Your task to perform on an android device: Search for sushi restaurants on Maps Image 0: 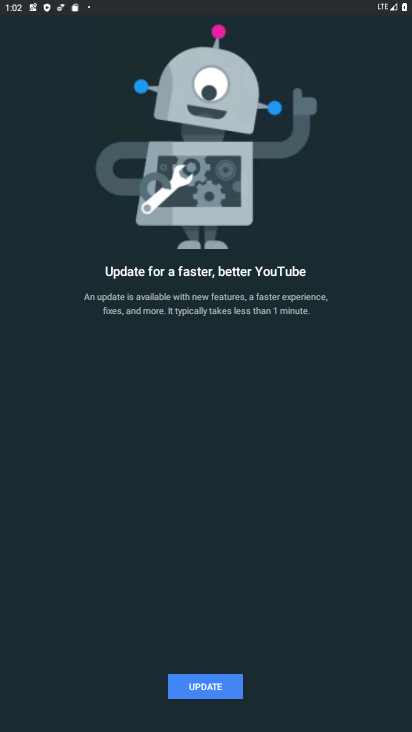
Step 0: press home button
Your task to perform on an android device: Search for sushi restaurants on Maps Image 1: 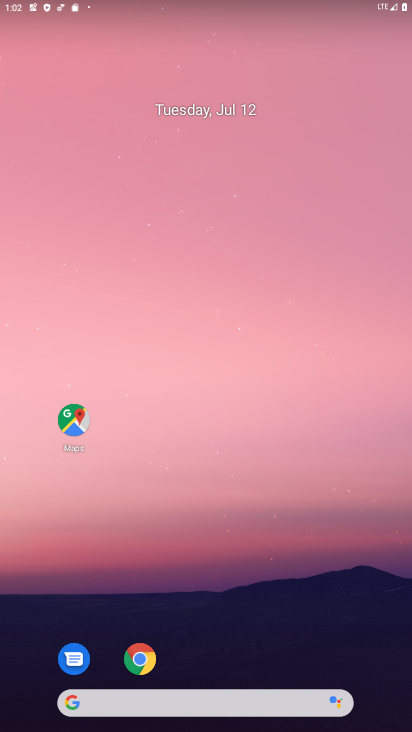
Step 1: drag from (231, 729) to (218, 140)
Your task to perform on an android device: Search for sushi restaurants on Maps Image 2: 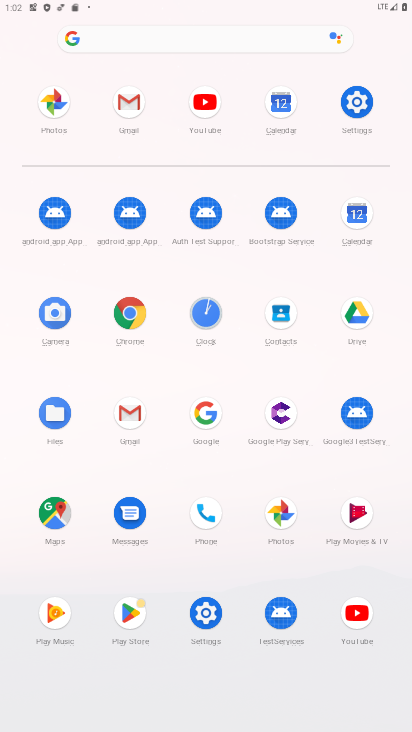
Step 2: click (47, 509)
Your task to perform on an android device: Search for sushi restaurants on Maps Image 3: 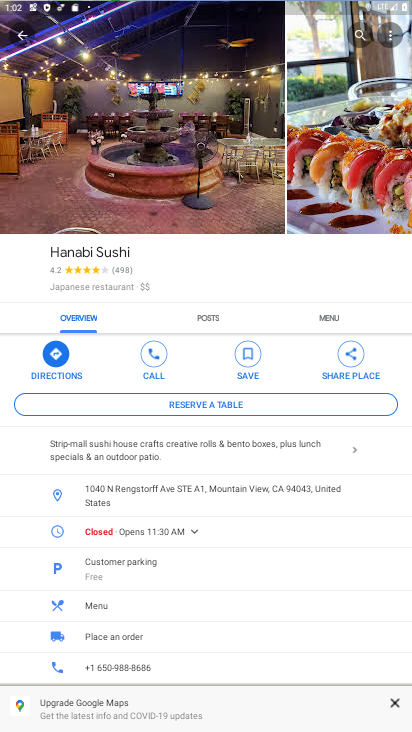
Step 3: click (394, 700)
Your task to perform on an android device: Search for sushi restaurants on Maps Image 4: 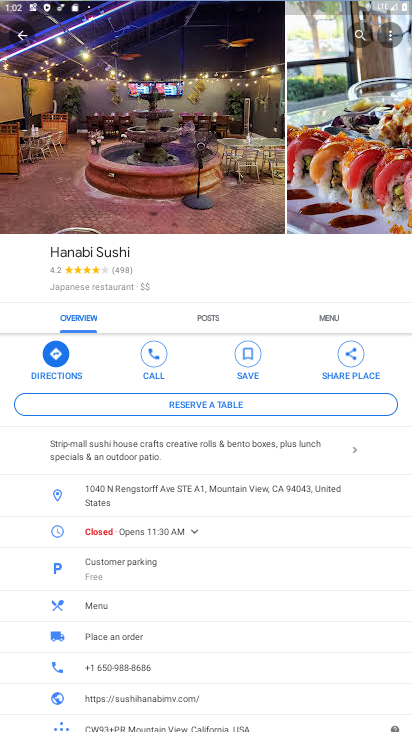
Step 4: click (25, 36)
Your task to perform on an android device: Search for sushi restaurants on Maps Image 5: 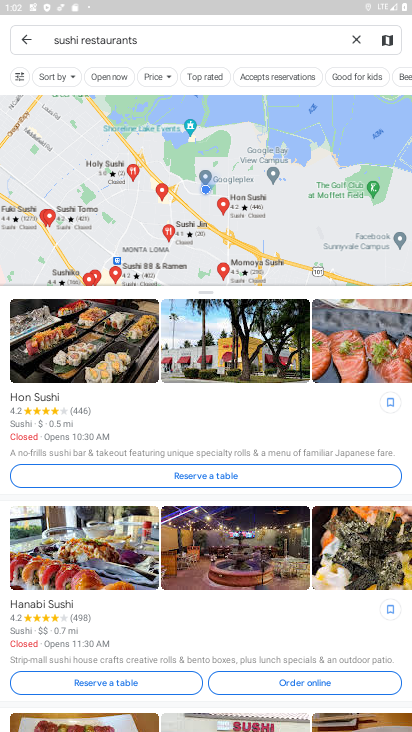
Step 5: task complete